Your task to perform on an android device: toggle airplane mode Image 0: 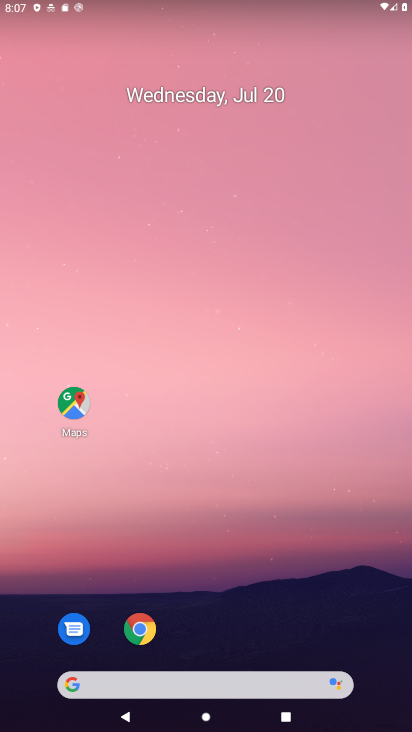
Step 0: drag from (281, 228) to (298, 123)
Your task to perform on an android device: toggle airplane mode Image 1: 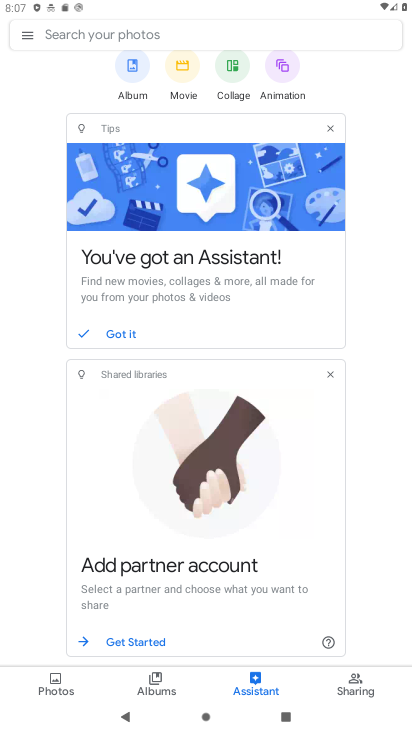
Step 1: press back button
Your task to perform on an android device: toggle airplane mode Image 2: 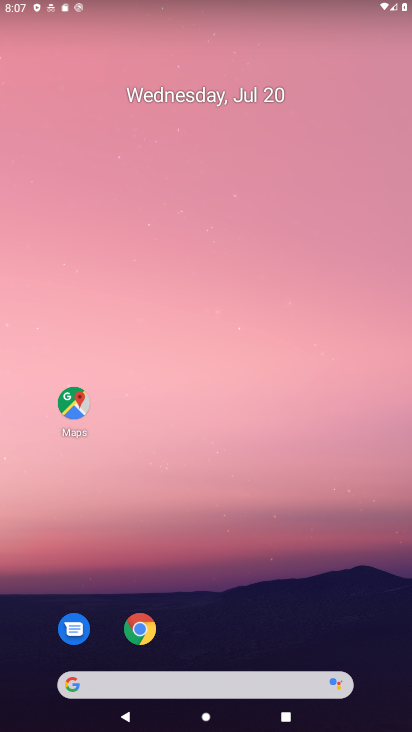
Step 2: drag from (212, 591) to (218, 51)
Your task to perform on an android device: toggle airplane mode Image 3: 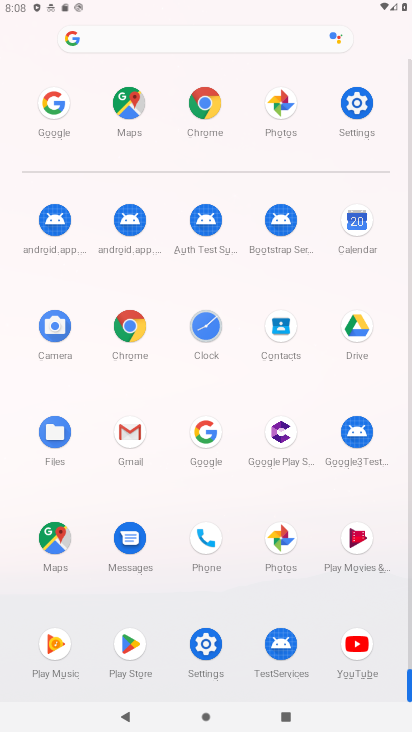
Step 3: click (357, 97)
Your task to perform on an android device: toggle airplane mode Image 4: 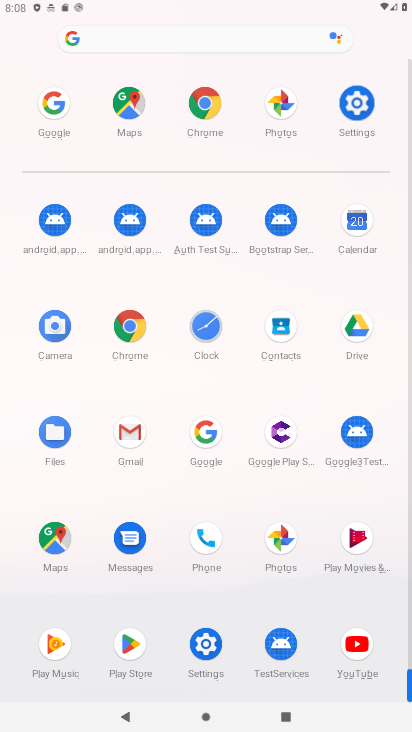
Step 4: click (356, 98)
Your task to perform on an android device: toggle airplane mode Image 5: 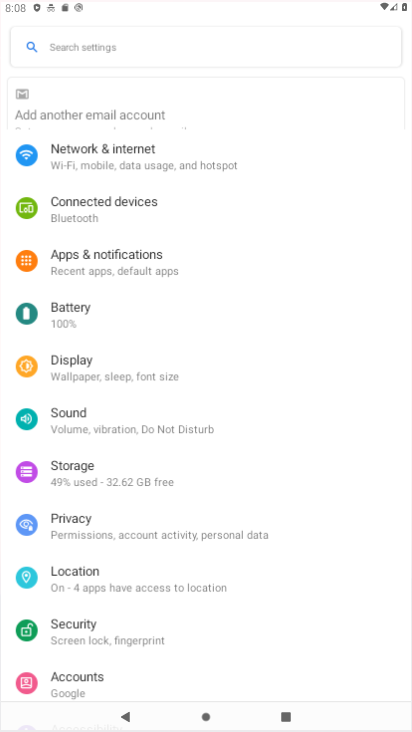
Step 5: click (350, 109)
Your task to perform on an android device: toggle airplane mode Image 6: 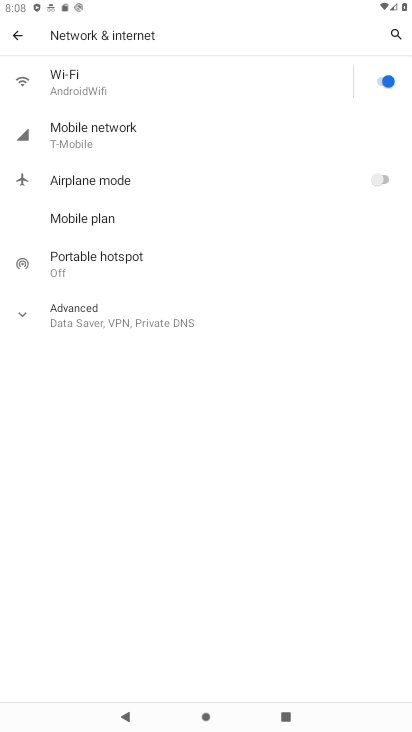
Step 6: click (373, 181)
Your task to perform on an android device: toggle airplane mode Image 7: 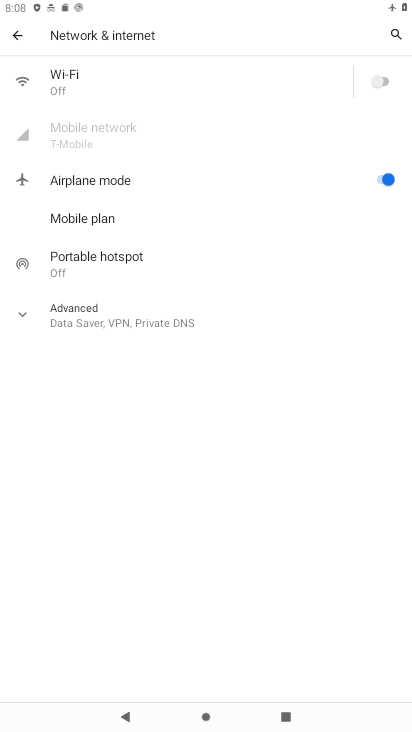
Step 7: task complete